Your task to perform on an android device: turn on location history Image 0: 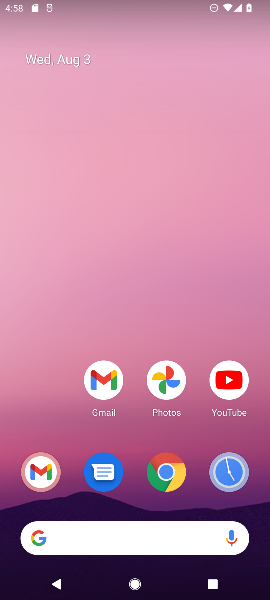
Step 0: drag from (182, 508) to (117, 85)
Your task to perform on an android device: turn on location history Image 1: 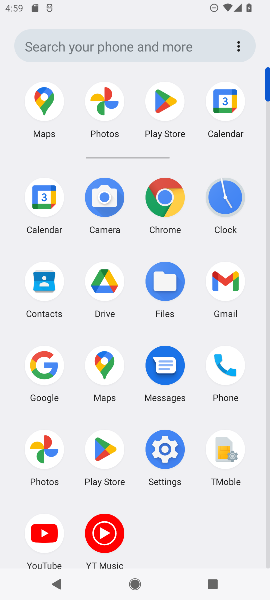
Step 1: click (165, 448)
Your task to perform on an android device: turn on location history Image 2: 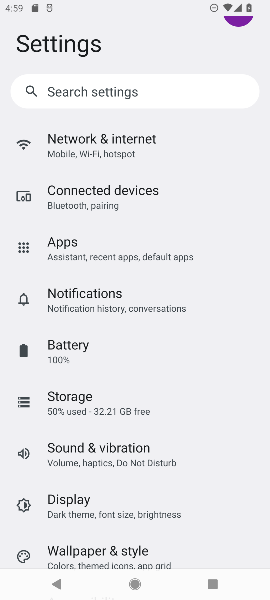
Step 2: drag from (85, 501) to (68, 165)
Your task to perform on an android device: turn on location history Image 3: 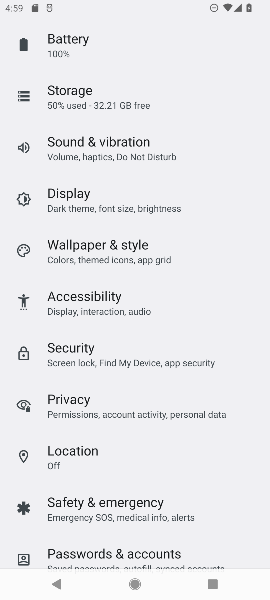
Step 3: click (86, 471)
Your task to perform on an android device: turn on location history Image 4: 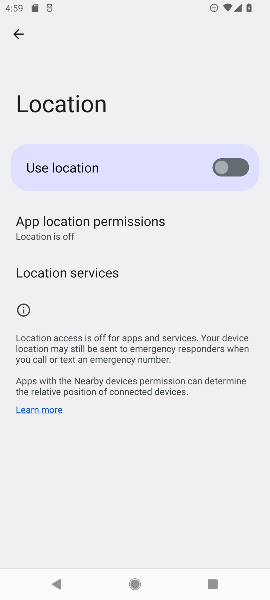
Step 4: click (74, 281)
Your task to perform on an android device: turn on location history Image 5: 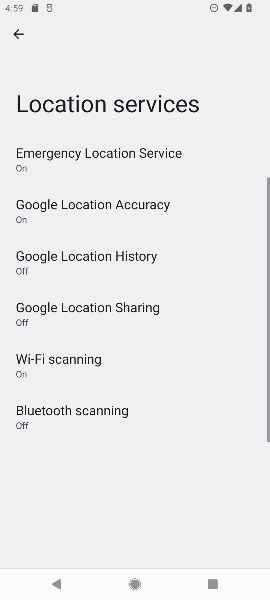
Step 5: click (92, 254)
Your task to perform on an android device: turn on location history Image 6: 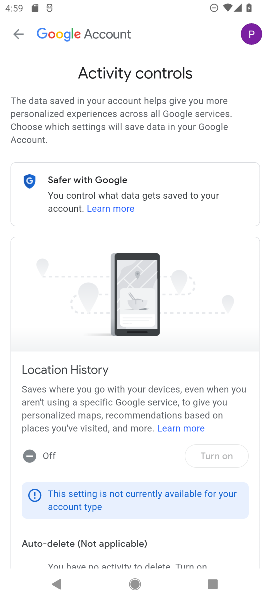
Step 6: task complete